Your task to perform on an android device: turn pop-ups on in chrome Image 0: 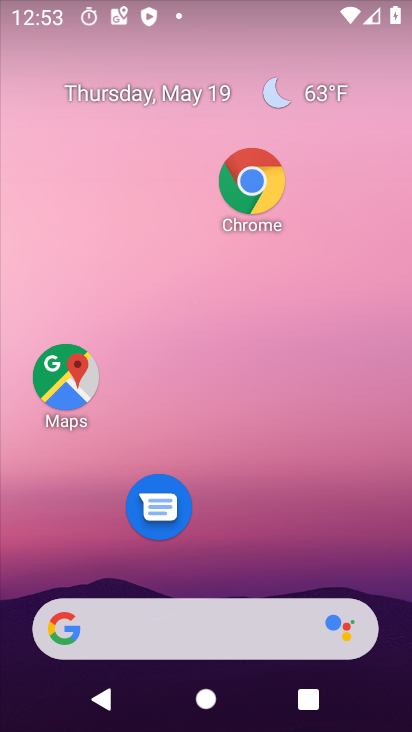
Step 0: drag from (252, 564) to (271, 119)
Your task to perform on an android device: turn pop-ups on in chrome Image 1: 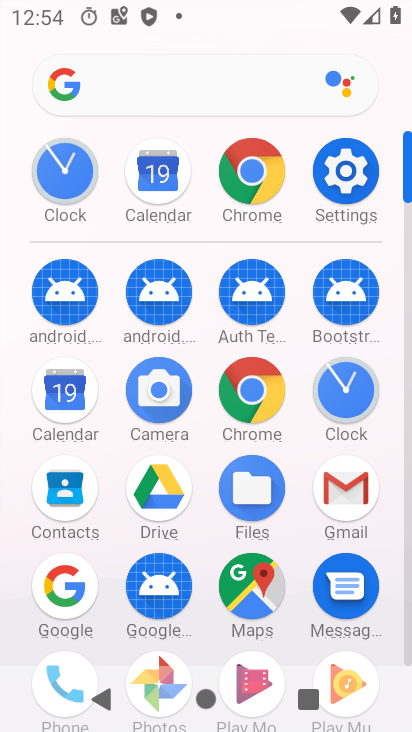
Step 1: click (240, 209)
Your task to perform on an android device: turn pop-ups on in chrome Image 2: 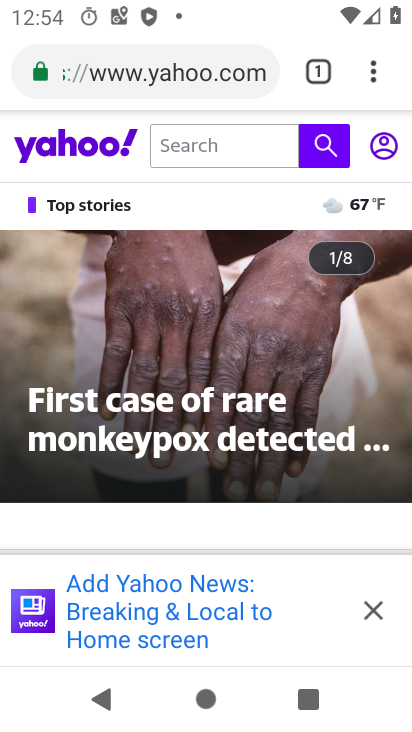
Step 2: click (369, 75)
Your task to perform on an android device: turn pop-ups on in chrome Image 3: 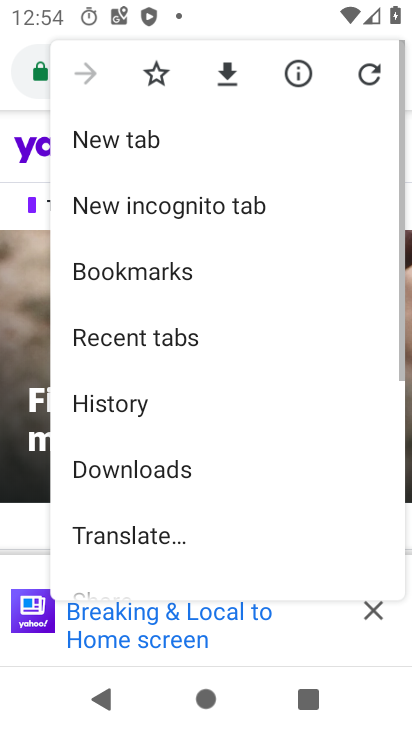
Step 3: click (368, 78)
Your task to perform on an android device: turn pop-ups on in chrome Image 4: 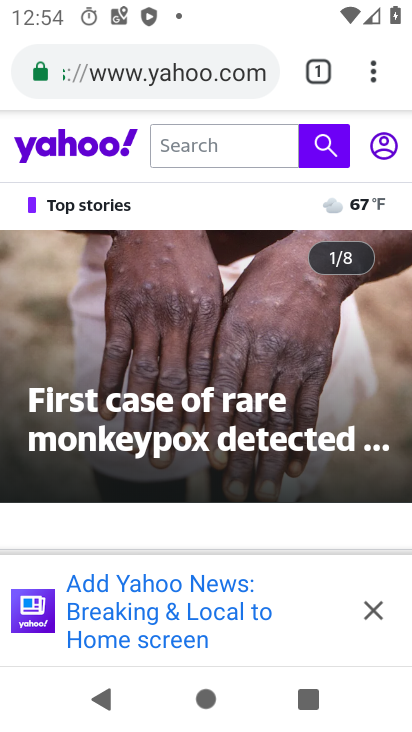
Step 4: click (367, 71)
Your task to perform on an android device: turn pop-ups on in chrome Image 5: 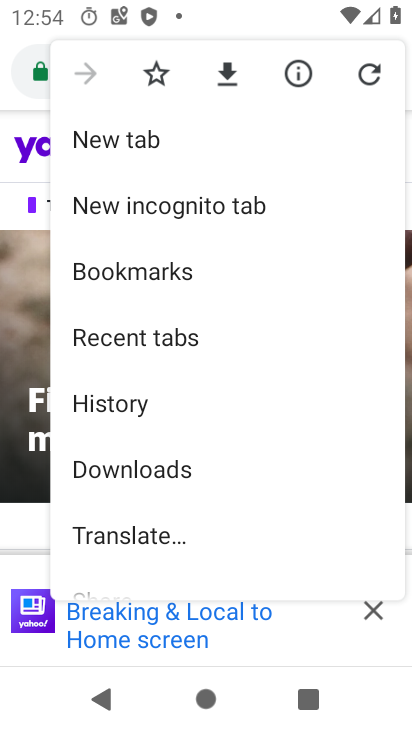
Step 5: drag from (157, 498) to (146, 113)
Your task to perform on an android device: turn pop-ups on in chrome Image 6: 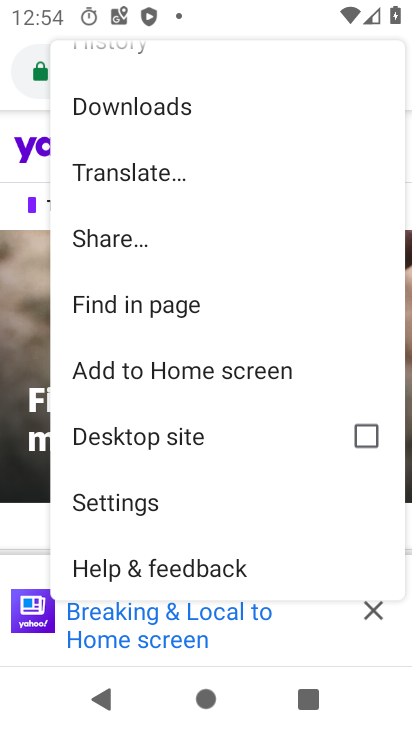
Step 6: drag from (195, 528) to (208, 204)
Your task to perform on an android device: turn pop-ups on in chrome Image 7: 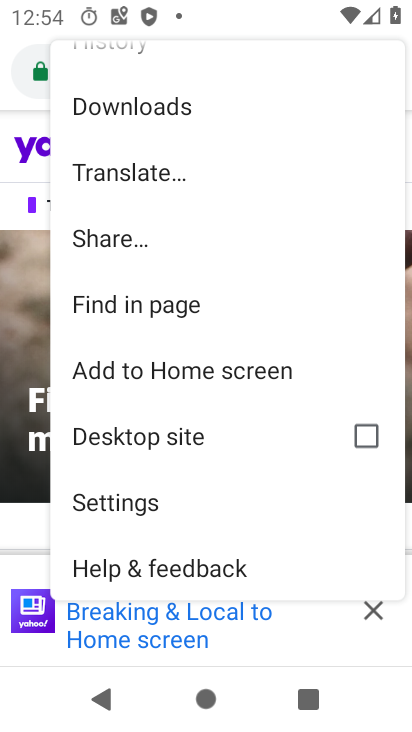
Step 7: click (147, 510)
Your task to perform on an android device: turn pop-ups on in chrome Image 8: 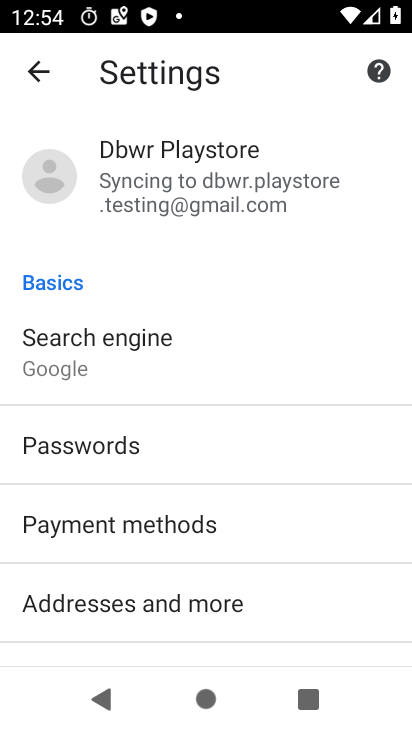
Step 8: drag from (149, 563) to (145, 132)
Your task to perform on an android device: turn pop-ups on in chrome Image 9: 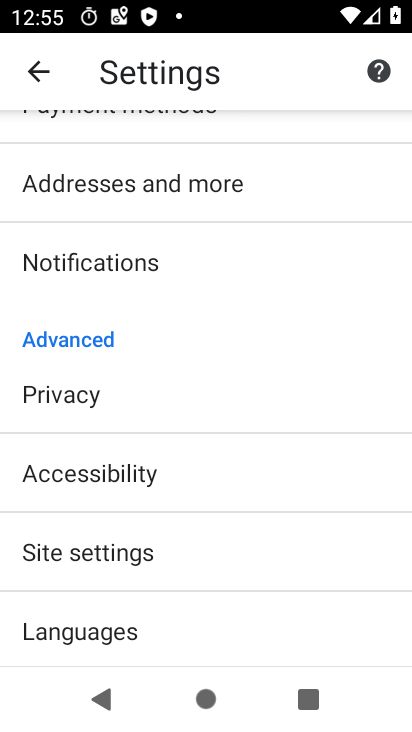
Step 9: click (151, 565)
Your task to perform on an android device: turn pop-ups on in chrome Image 10: 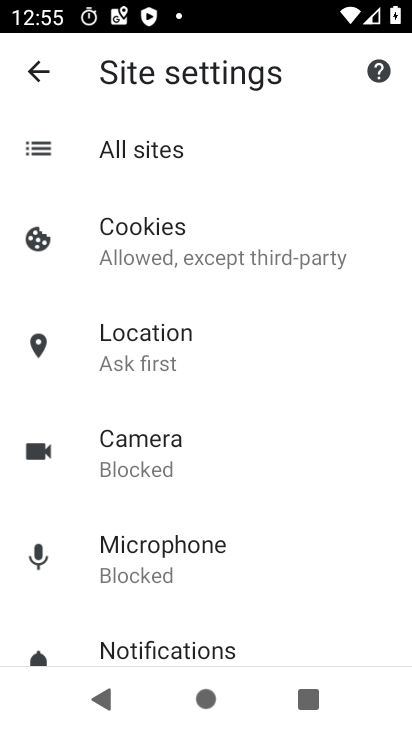
Step 10: drag from (174, 589) to (224, 228)
Your task to perform on an android device: turn pop-ups on in chrome Image 11: 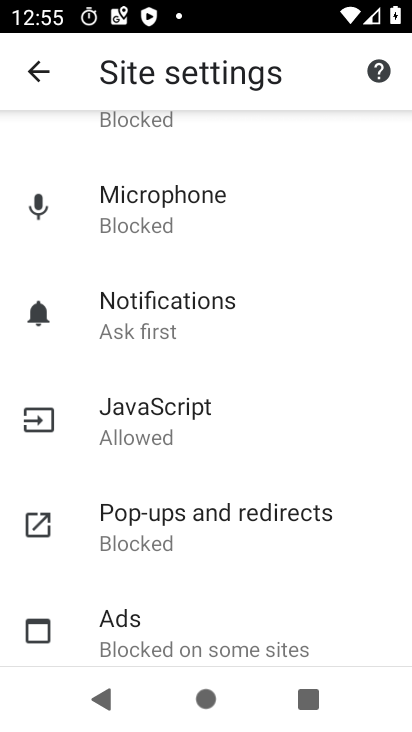
Step 11: click (183, 538)
Your task to perform on an android device: turn pop-ups on in chrome Image 12: 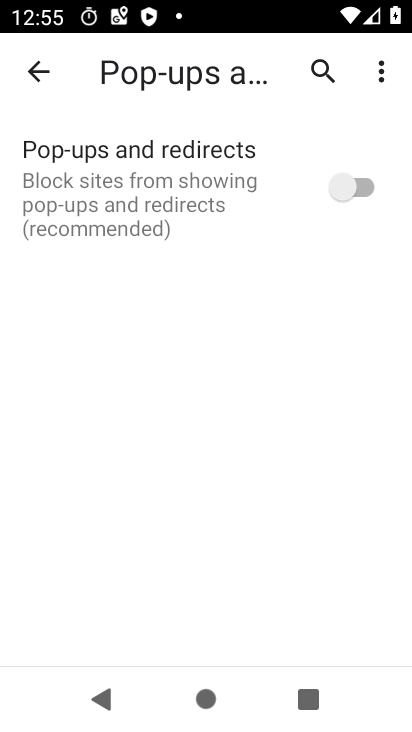
Step 12: click (366, 184)
Your task to perform on an android device: turn pop-ups on in chrome Image 13: 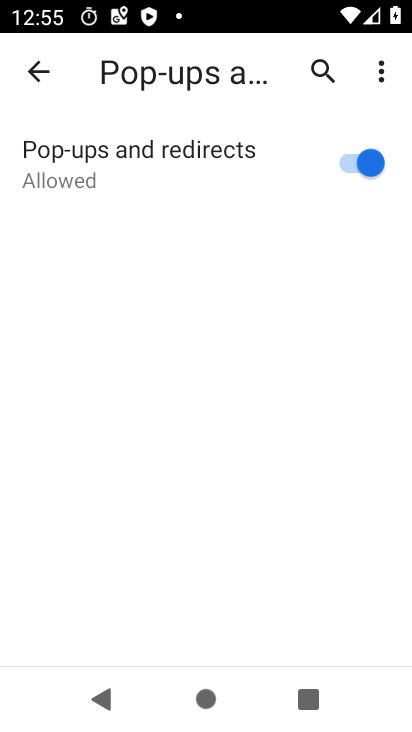
Step 13: task complete